Your task to perform on an android device: Go to accessibility settings Image 0: 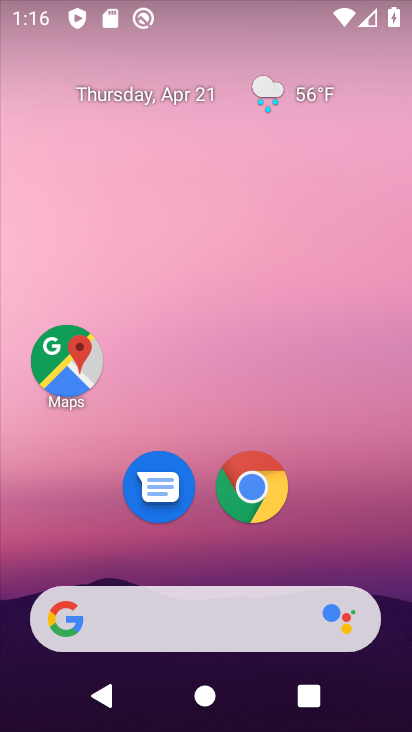
Step 0: drag from (356, 575) to (360, 22)
Your task to perform on an android device: Go to accessibility settings Image 1: 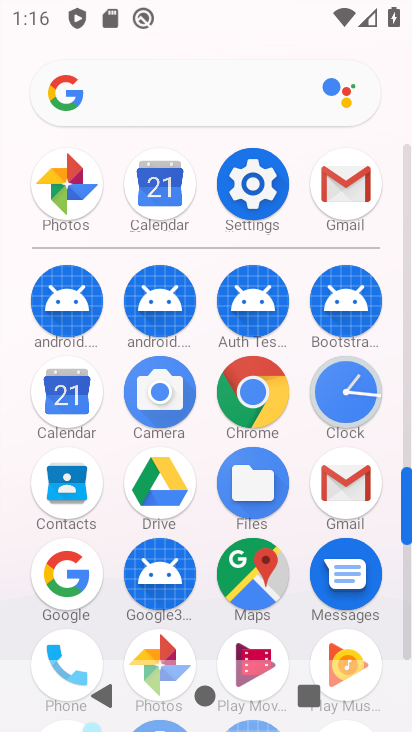
Step 1: click (238, 185)
Your task to perform on an android device: Go to accessibility settings Image 2: 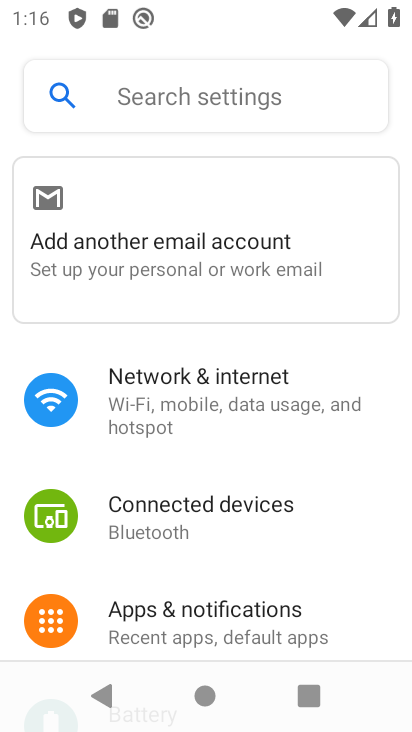
Step 2: drag from (348, 591) to (297, 9)
Your task to perform on an android device: Go to accessibility settings Image 3: 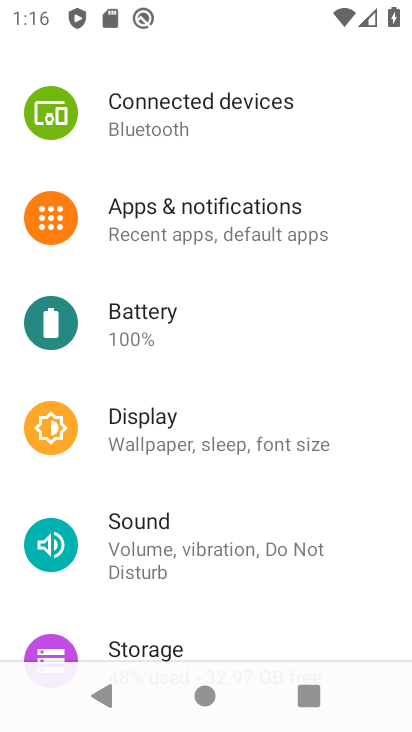
Step 3: drag from (306, 497) to (277, 86)
Your task to perform on an android device: Go to accessibility settings Image 4: 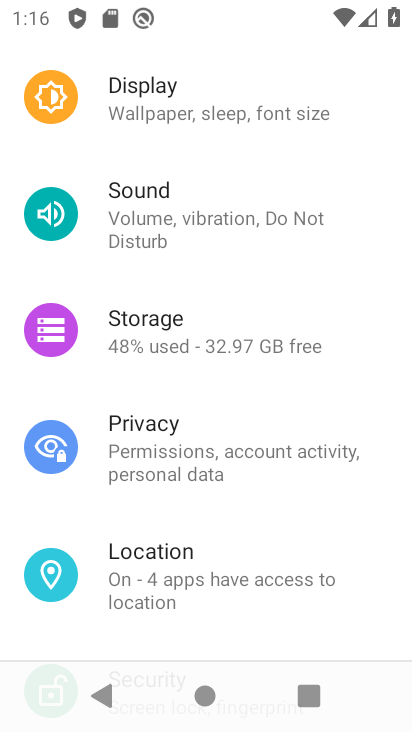
Step 4: drag from (266, 527) to (228, 141)
Your task to perform on an android device: Go to accessibility settings Image 5: 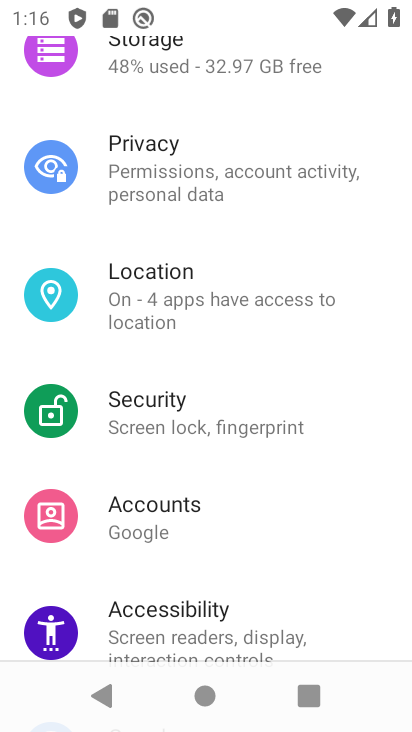
Step 5: click (167, 619)
Your task to perform on an android device: Go to accessibility settings Image 6: 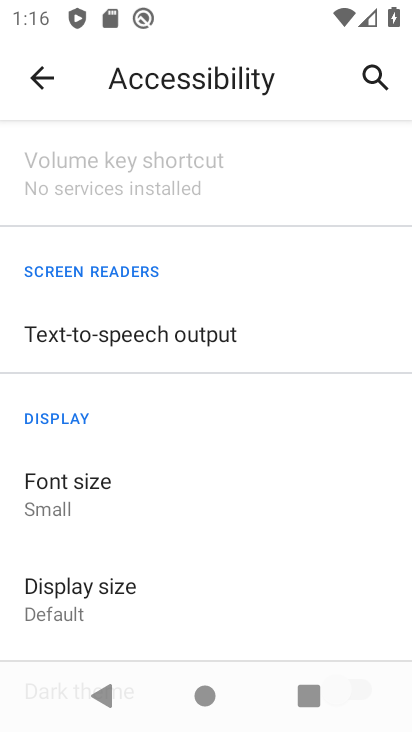
Step 6: task complete